Your task to perform on an android device: Open accessibility settings Image 0: 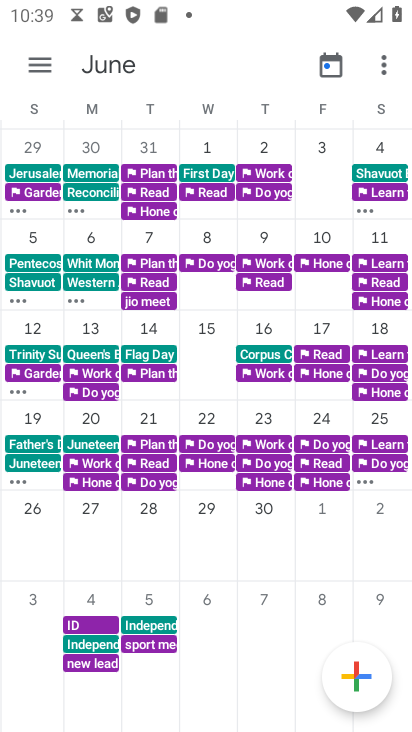
Step 0: press home button
Your task to perform on an android device: Open accessibility settings Image 1: 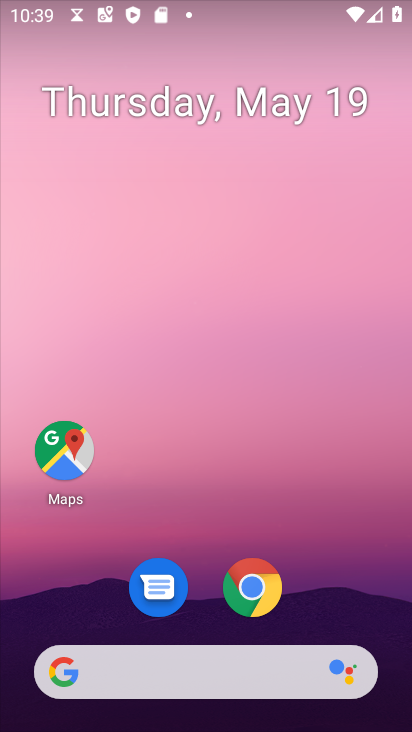
Step 1: drag from (155, 674) to (196, 11)
Your task to perform on an android device: Open accessibility settings Image 2: 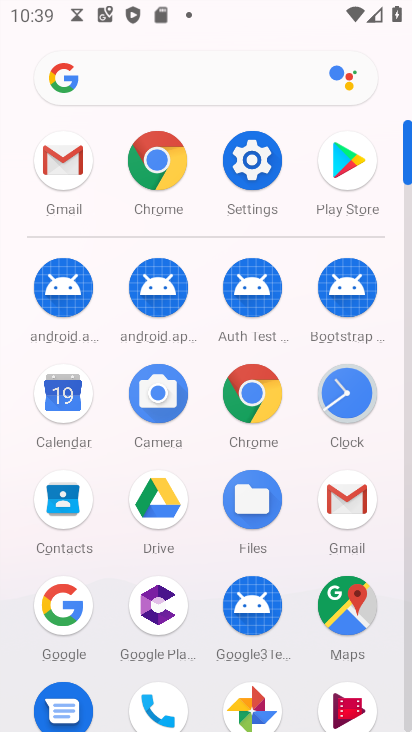
Step 2: click (235, 178)
Your task to perform on an android device: Open accessibility settings Image 3: 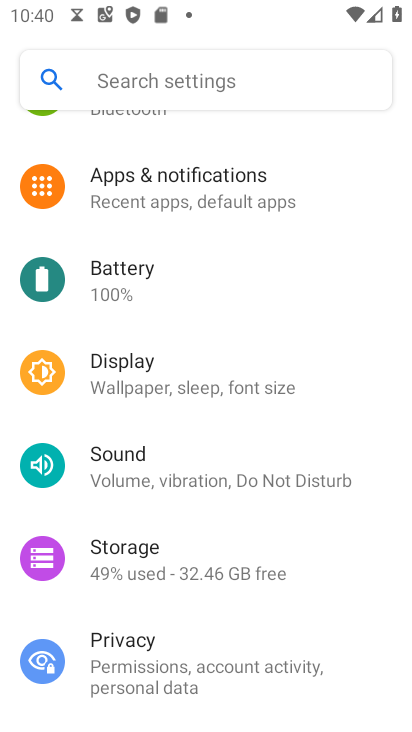
Step 3: drag from (154, 656) to (163, 145)
Your task to perform on an android device: Open accessibility settings Image 4: 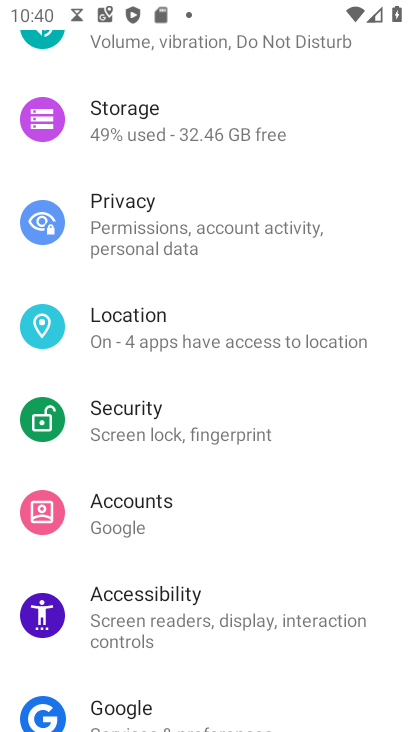
Step 4: click (146, 613)
Your task to perform on an android device: Open accessibility settings Image 5: 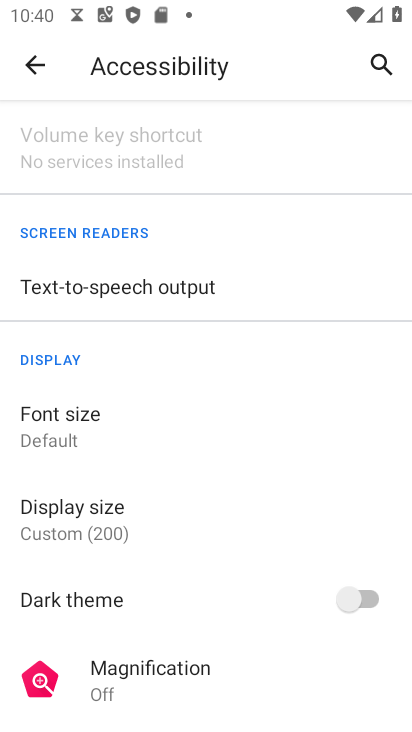
Step 5: task complete